Your task to perform on an android device: clear history in the chrome app Image 0: 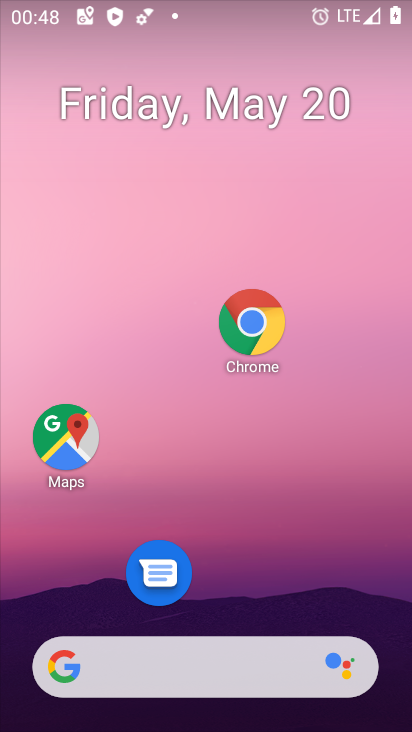
Step 0: click (237, 332)
Your task to perform on an android device: clear history in the chrome app Image 1: 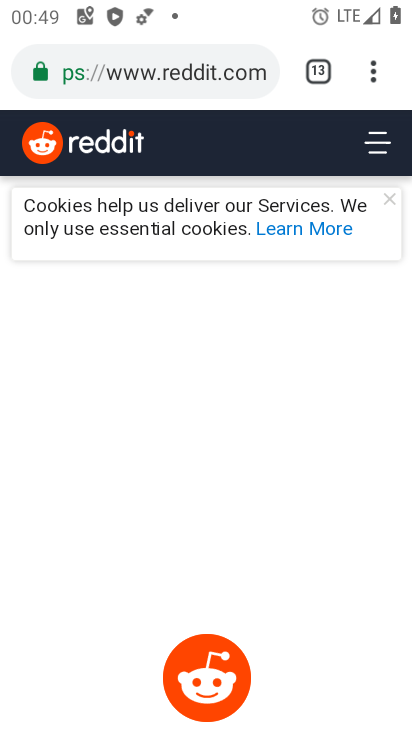
Step 1: click (362, 78)
Your task to perform on an android device: clear history in the chrome app Image 2: 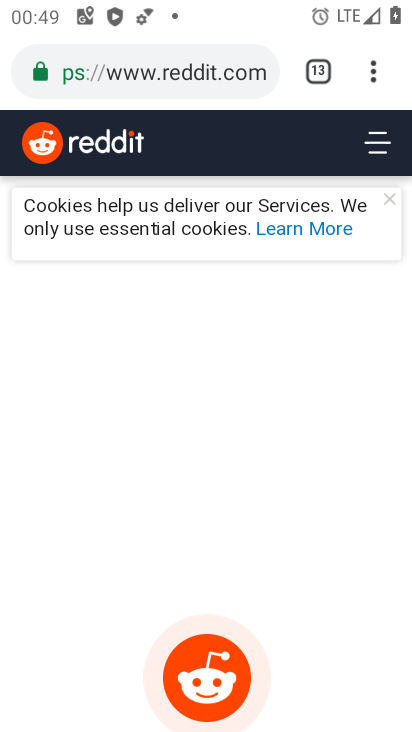
Step 2: drag from (369, 70) to (102, 397)
Your task to perform on an android device: clear history in the chrome app Image 3: 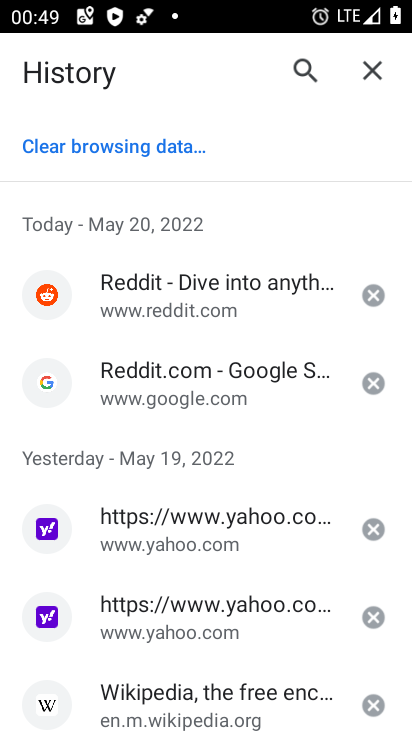
Step 3: drag from (209, 580) to (215, 341)
Your task to perform on an android device: clear history in the chrome app Image 4: 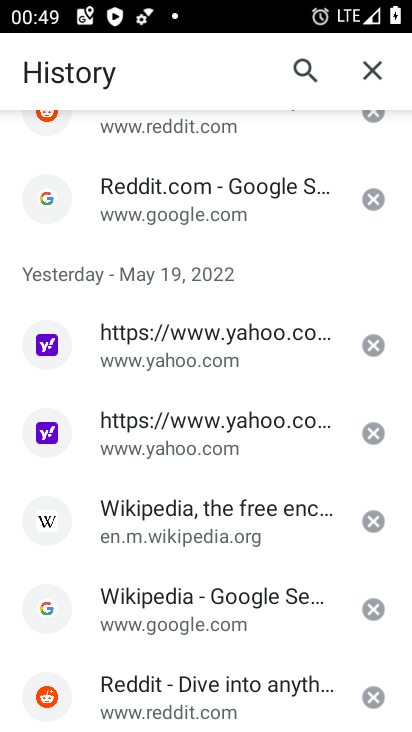
Step 4: drag from (215, 339) to (227, 684)
Your task to perform on an android device: clear history in the chrome app Image 5: 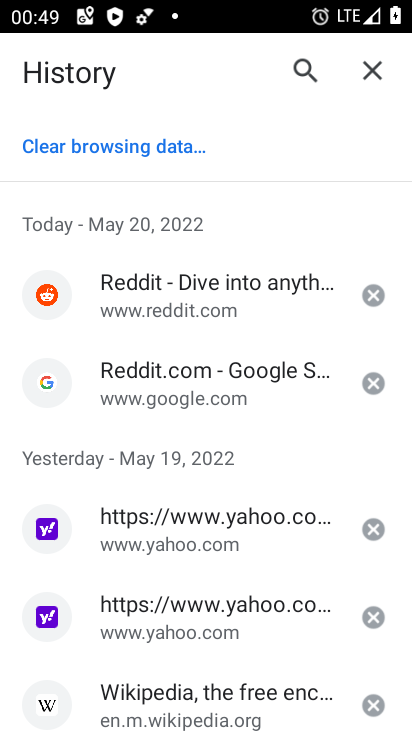
Step 5: click (88, 148)
Your task to perform on an android device: clear history in the chrome app Image 6: 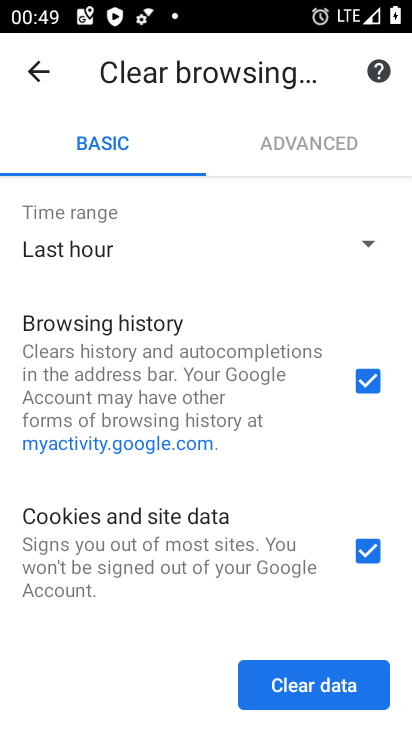
Step 6: click (366, 681)
Your task to perform on an android device: clear history in the chrome app Image 7: 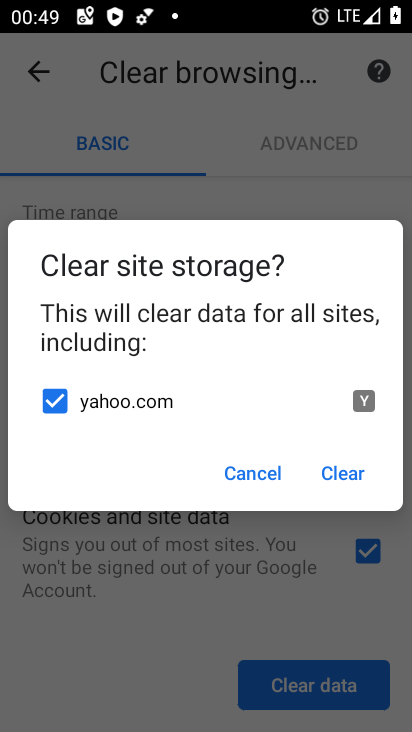
Step 7: click (339, 481)
Your task to perform on an android device: clear history in the chrome app Image 8: 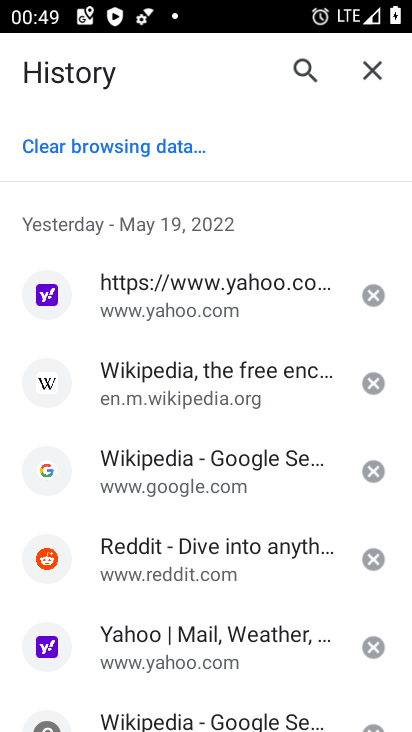
Step 8: task complete